Your task to perform on an android device: allow cookies in the chrome app Image 0: 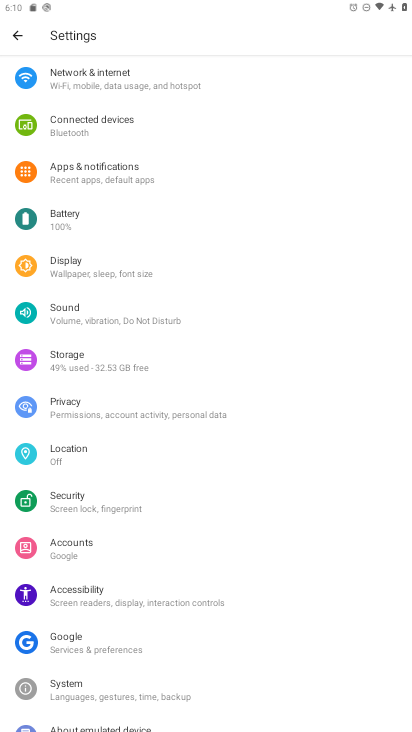
Step 0: press home button
Your task to perform on an android device: allow cookies in the chrome app Image 1: 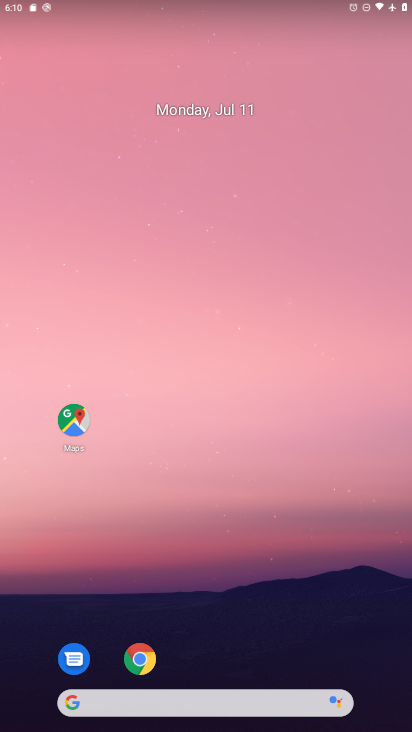
Step 1: click (139, 658)
Your task to perform on an android device: allow cookies in the chrome app Image 2: 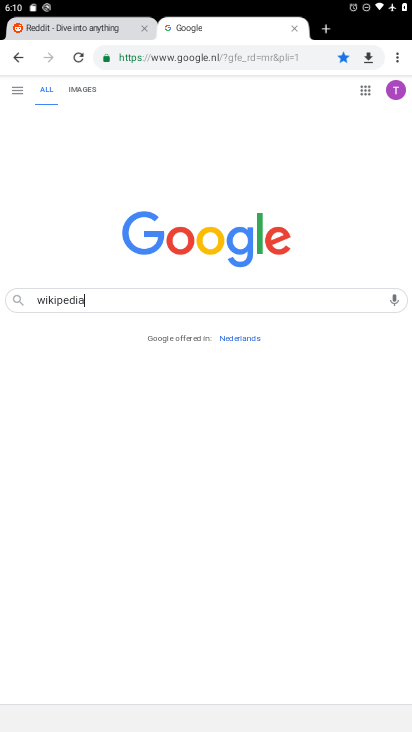
Step 2: click (397, 59)
Your task to perform on an android device: allow cookies in the chrome app Image 3: 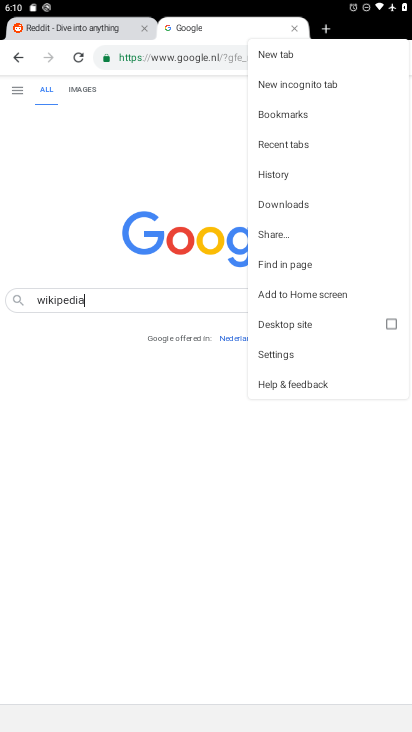
Step 3: click (273, 350)
Your task to perform on an android device: allow cookies in the chrome app Image 4: 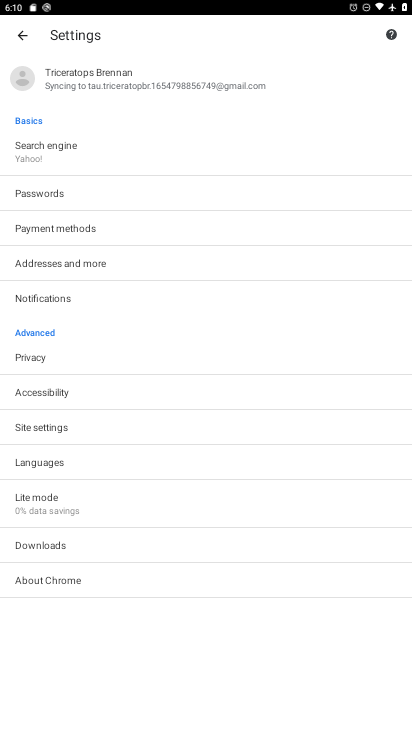
Step 4: click (37, 422)
Your task to perform on an android device: allow cookies in the chrome app Image 5: 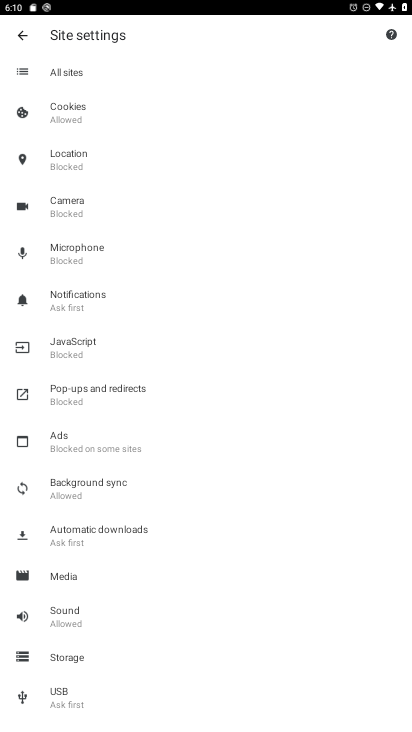
Step 5: click (68, 106)
Your task to perform on an android device: allow cookies in the chrome app Image 6: 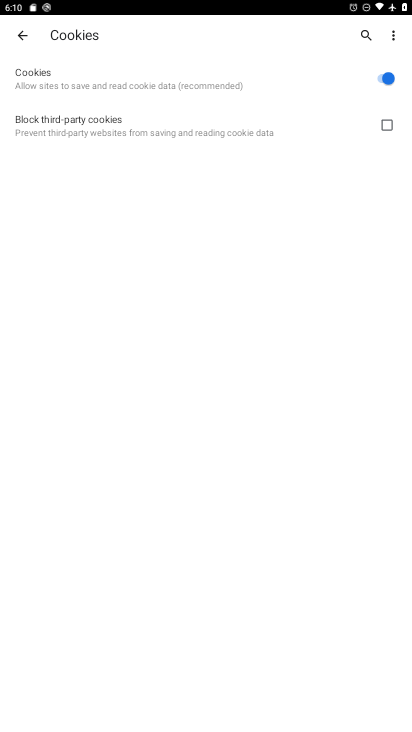
Step 6: task complete